Your task to perform on an android device: Go to calendar. Show me events next week Image 0: 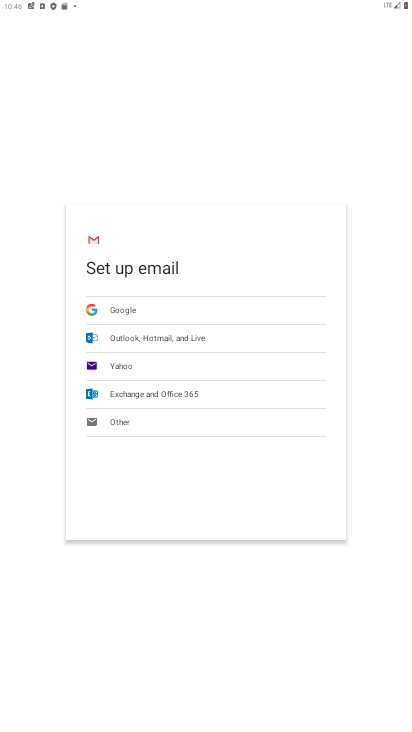
Step 0: press home button
Your task to perform on an android device: Go to calendar. Show me events next week Image 1: 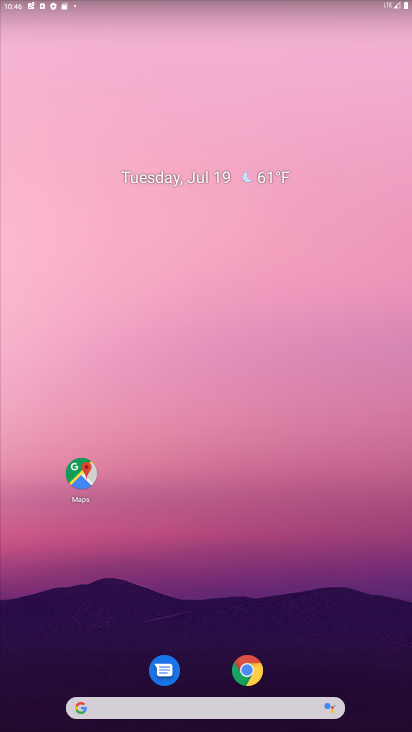
Step 1: drag from (205, 706) to (273, 110)
Your task to perform on an android device: Go to calendar. Show me events next week Image 2: 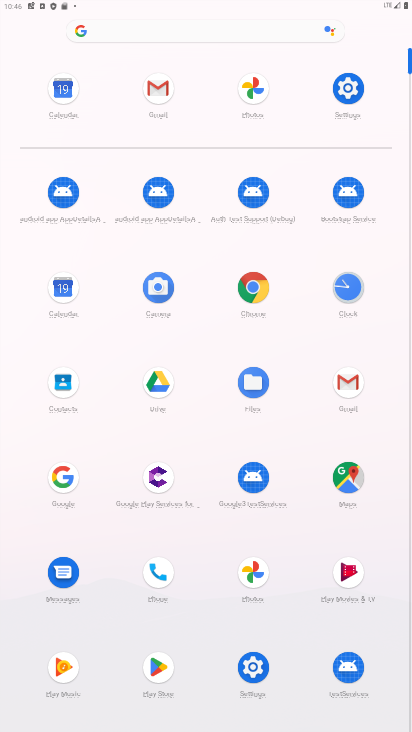
Step 2: click (73, 289)
Your task to perform on an android device: Go to calendar. Show me events next week Image 3: 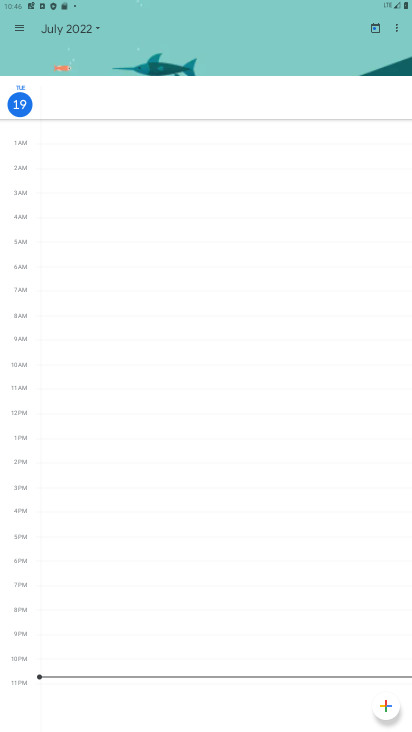
Step 3: click (55, 30)
Your task to perform on an android device: Go to calendar. Show me events next week Image 4: 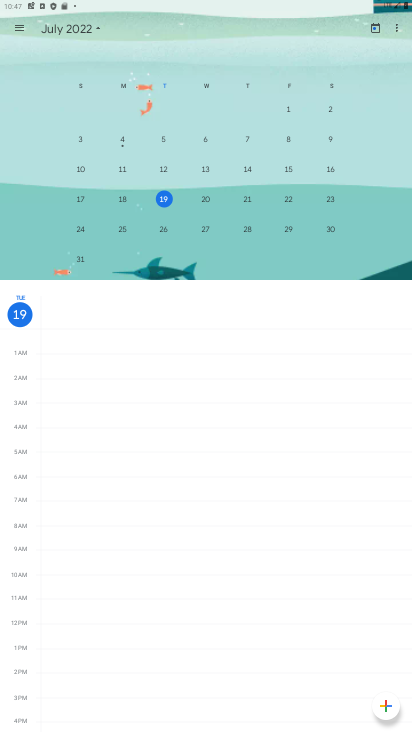
Step 4: click (54, 31)
Your task to perform on an android device: Go to calendar. Show me events next week Image 5: 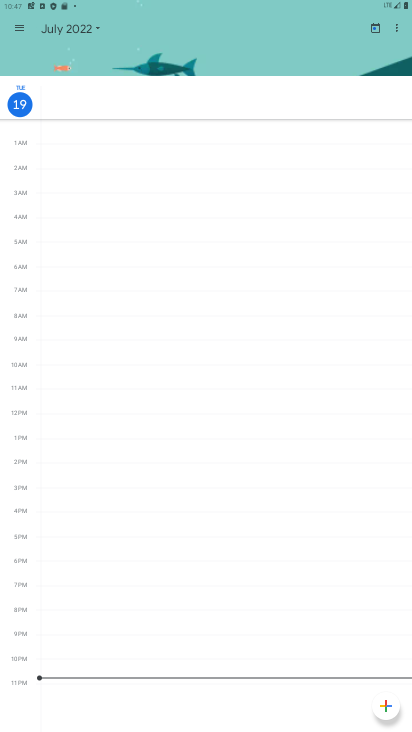
Step 5: click (74, 22)
Your task to perform on an android device: Go to calendar. Show me events next week Image 6: 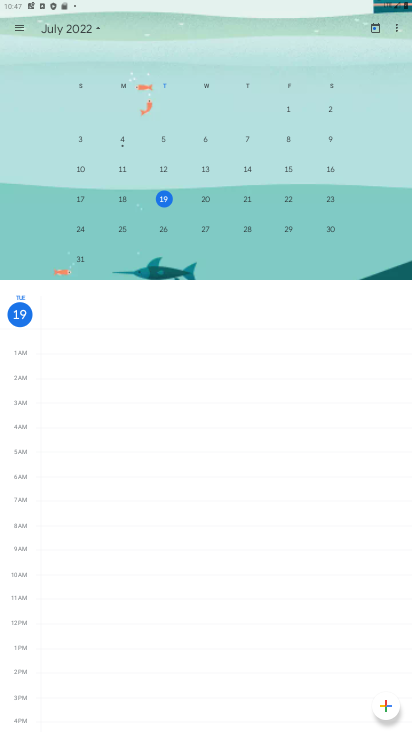
Step 6: click (77, 232)
Your task to perform on an android device: Go to calendar. Show me events next week Image 7: 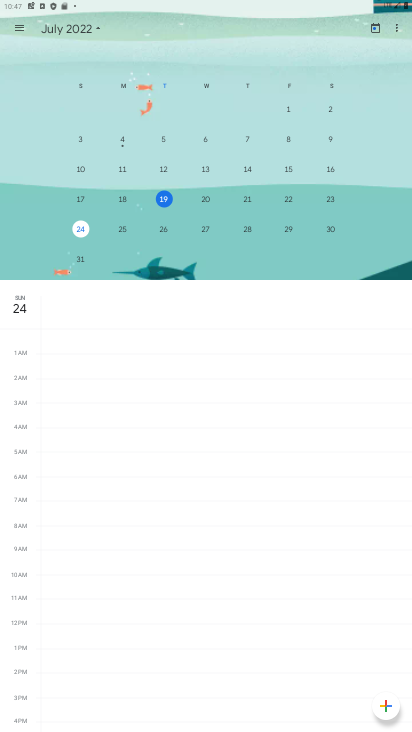
Step 7: task complete